Your task to perform on an android device: Open Google Chrome and click the shortcut for Amazon.com Image 0: 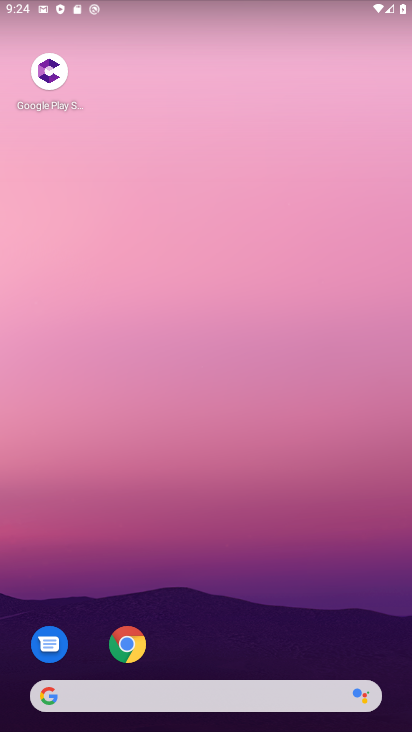
Step 0: click (118, 646)
Your task to perform on an android device: Open Google Chrome and click the shortcut for Amazon.com Image 1: 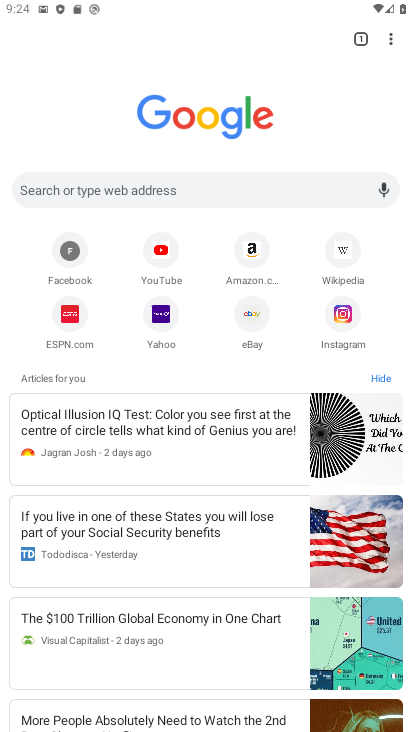
Step 1: click (248, 248)
Your task to perform on an android device: Open Google Chrome and click the shortcut for Amazon.com Image 2: 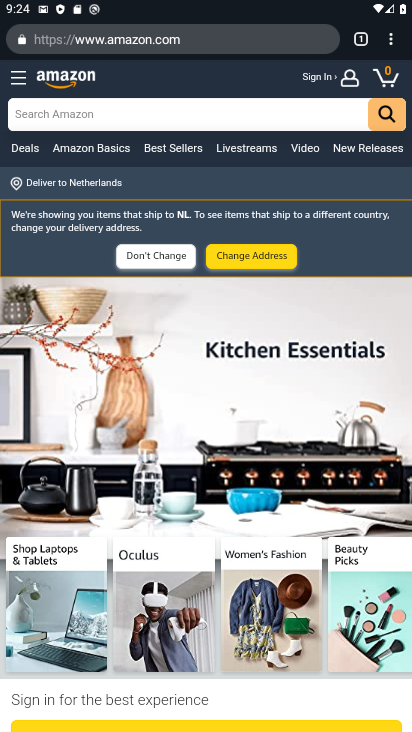
Step 2: task complete